Your task to perform on an android device: turn vacation reply on in the gmail app Image 0: 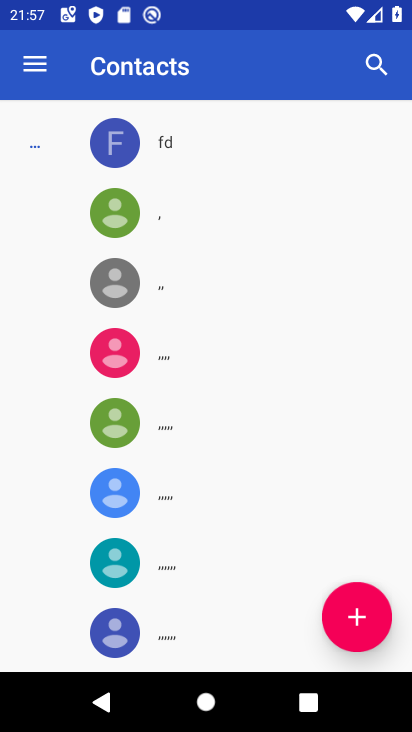
Step 0: press home button
Your task to perform on an android device: turn vacation reply on in the gmail app Image 1: 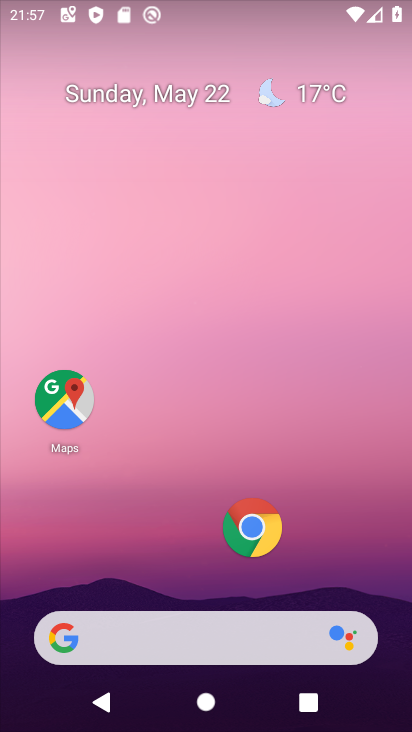
Step 1: drag from (167, 542) to (78, 86)
Your task to perform on an android device: turn vacation reply on in the gmail app Image 2: 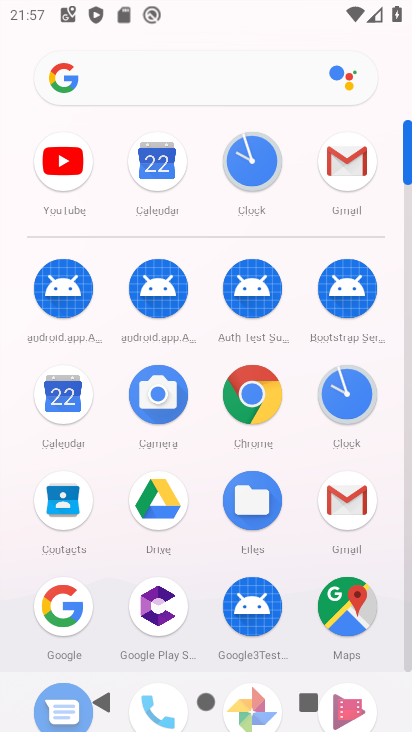
Step 2: click (345, 498)
Your task to perform on an android device: turn vacation reply on in the gmail app Image 3: 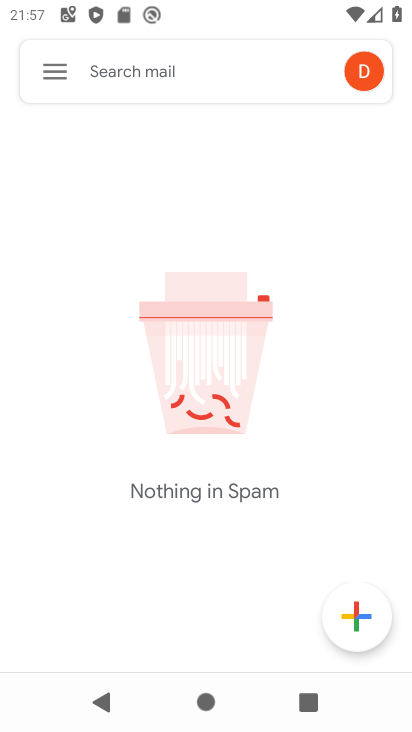
Step 3: click (50, 65)
Your task to perform on an android device: turn vacation reply on in the gmail app Image 4: 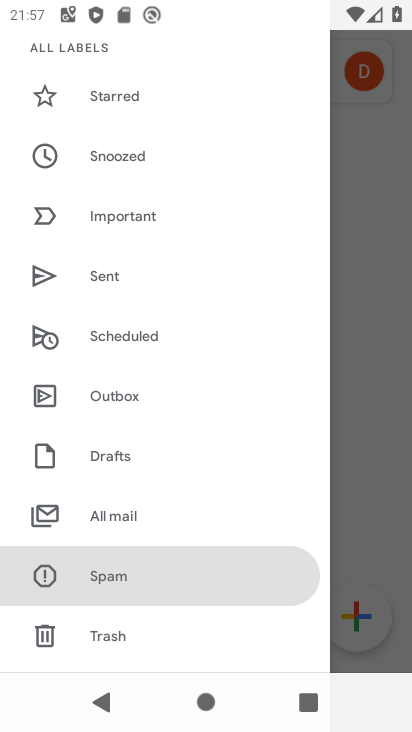
Step 4: drag from (189, 478) to (161, 78)
Your task to perform on an android device: turn vacation reply on in the gmail app Image 5: 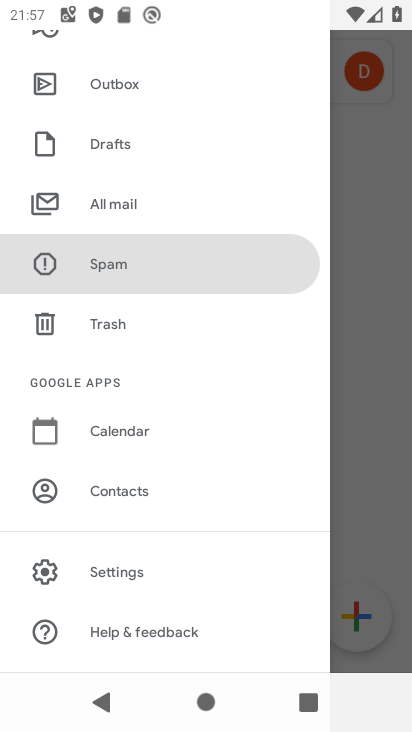
Step 5: click (129, 567)
Your task to perform on an android device: turn vacation reply on in the gmail app Image 6: 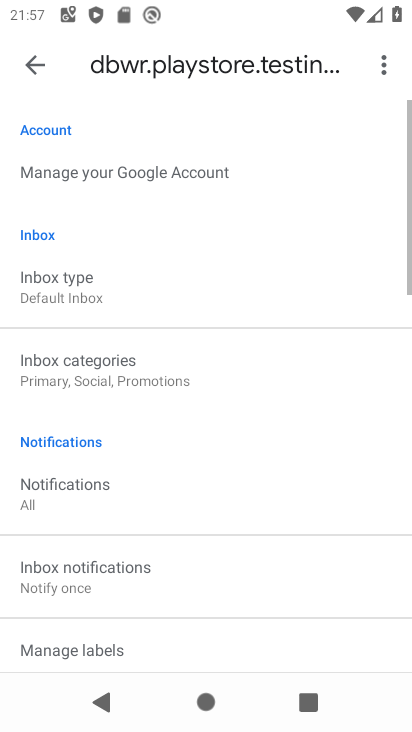
Step 6: drag from (254, 465) to (254, 38)
Your task to perform on an android device: turn vacation reply on in the gmail app Image 7: 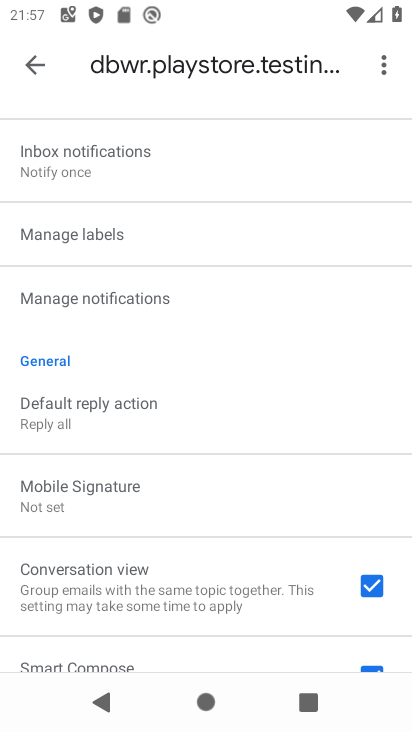
Step 7: drag from (218, 505) to (186, 124)
Your task to perform on an android device: turn vacation reply on in the gmail app Image 8: 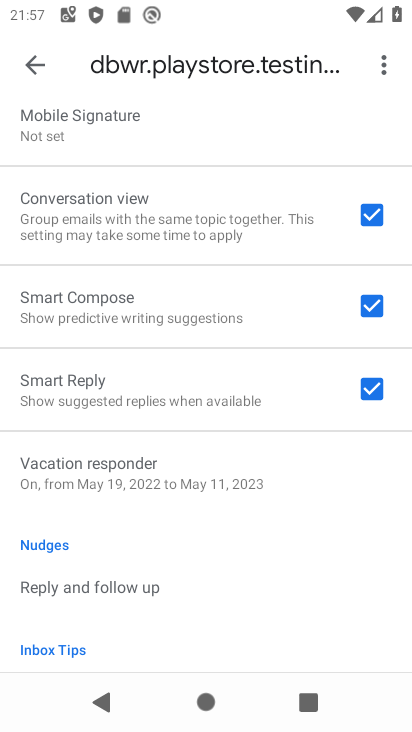
Step 8: click (134, 462)
Your task to perform on an android device: turn vacation reply on in the gmail app Image 9: 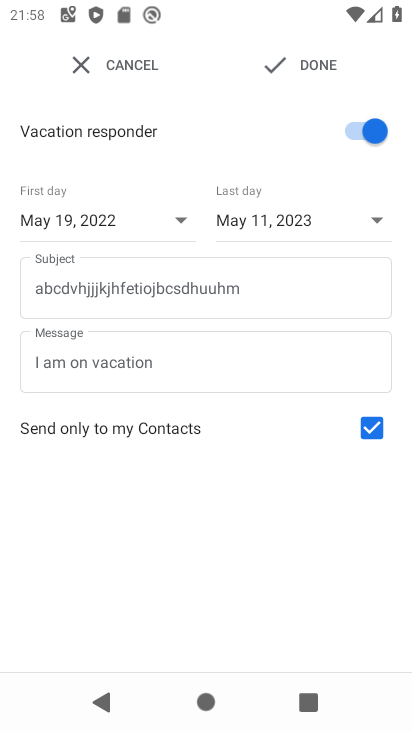
Step 9: task complete